Your task to perform on an android device: open device folders in google photos Image 0: 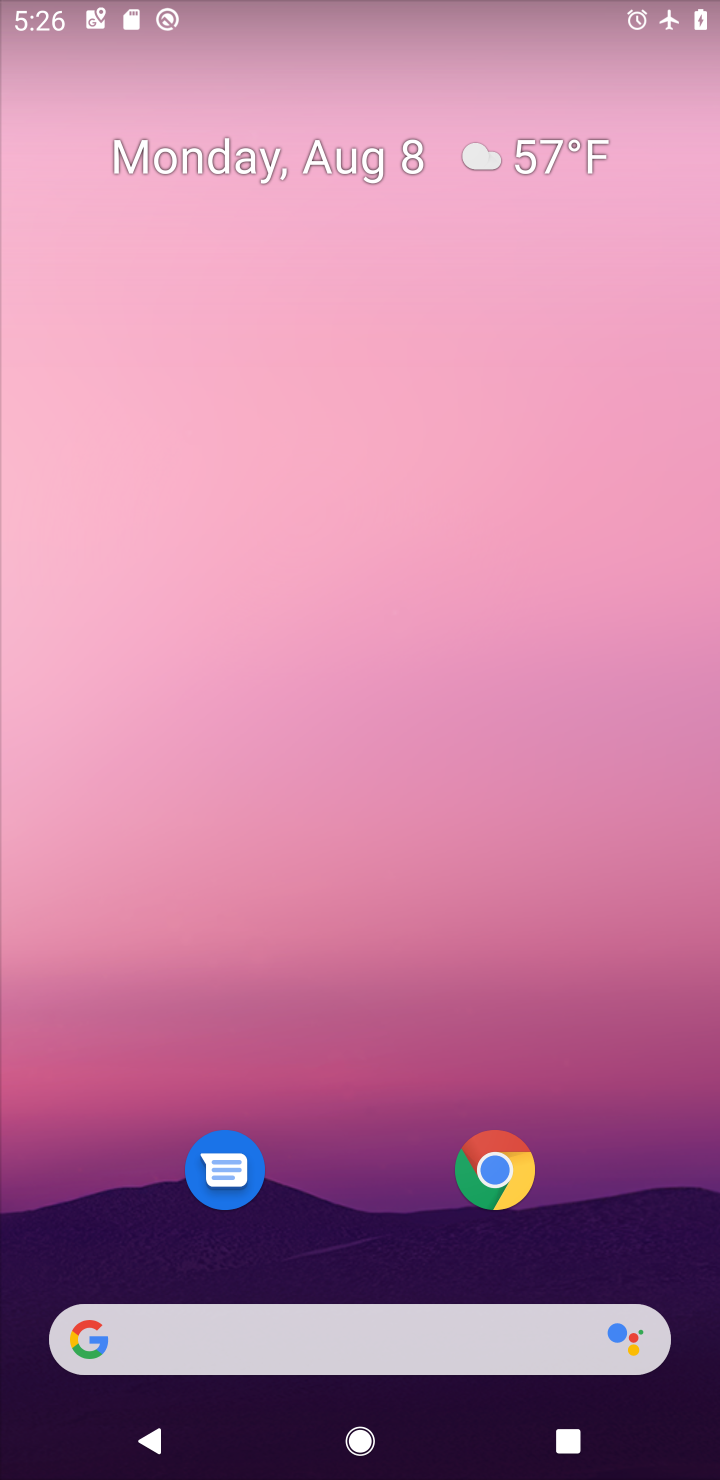
Step 0: drag from (353, 1213) to (317, 379)
Your task to perform on an android device: open device folders in google photos Image 1: 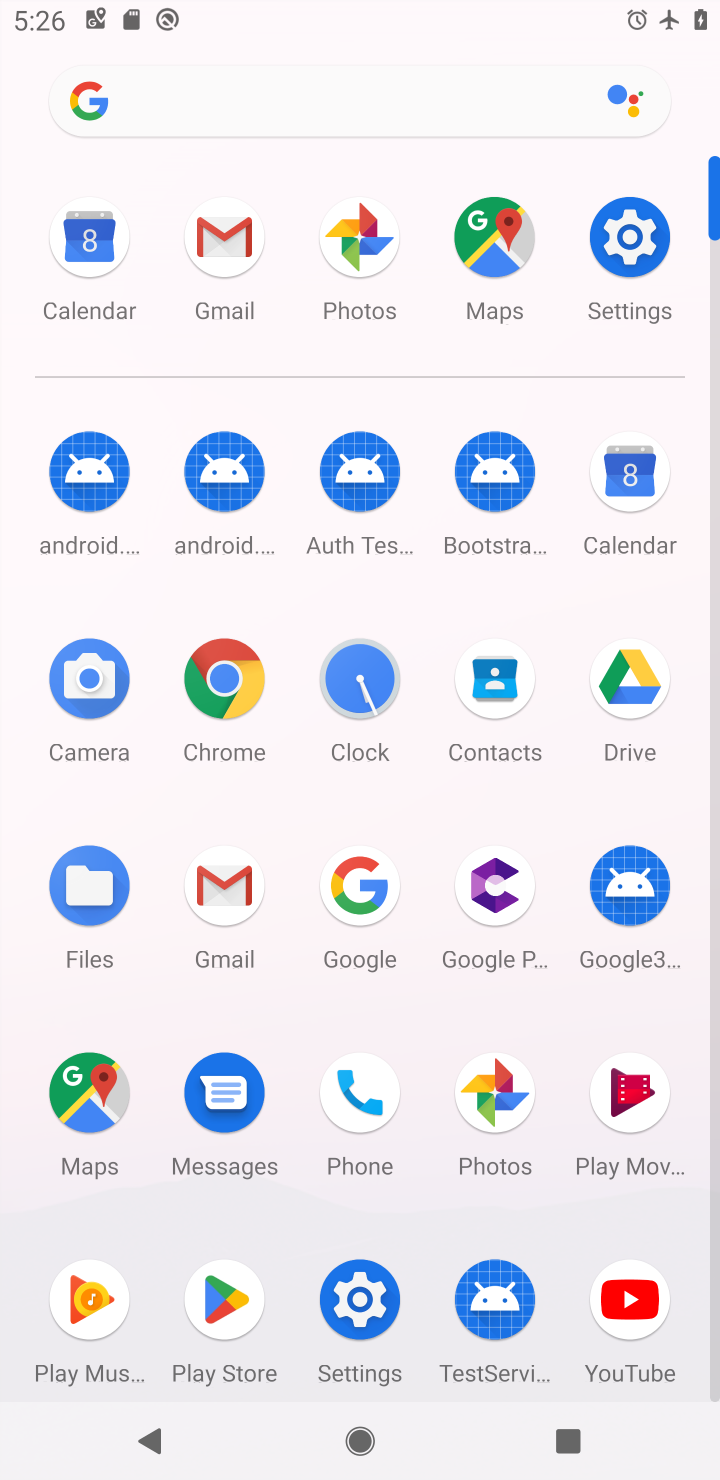
Step 1: click (356, 281)
Your task to perform on an android device: open device folders in google photos Image 2: 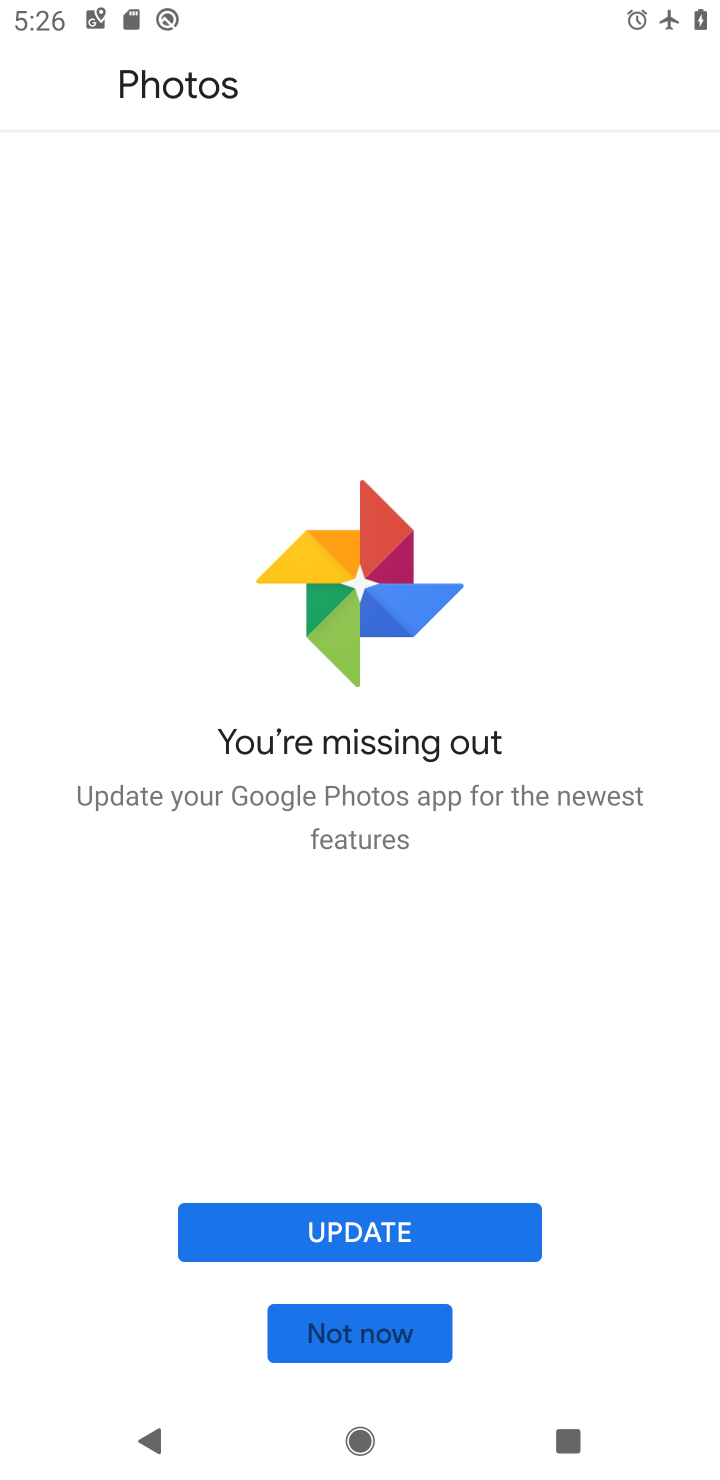
Step 2: click (394, 1354)
Your task to perform on an android device: open device folders in google photos Image 3: 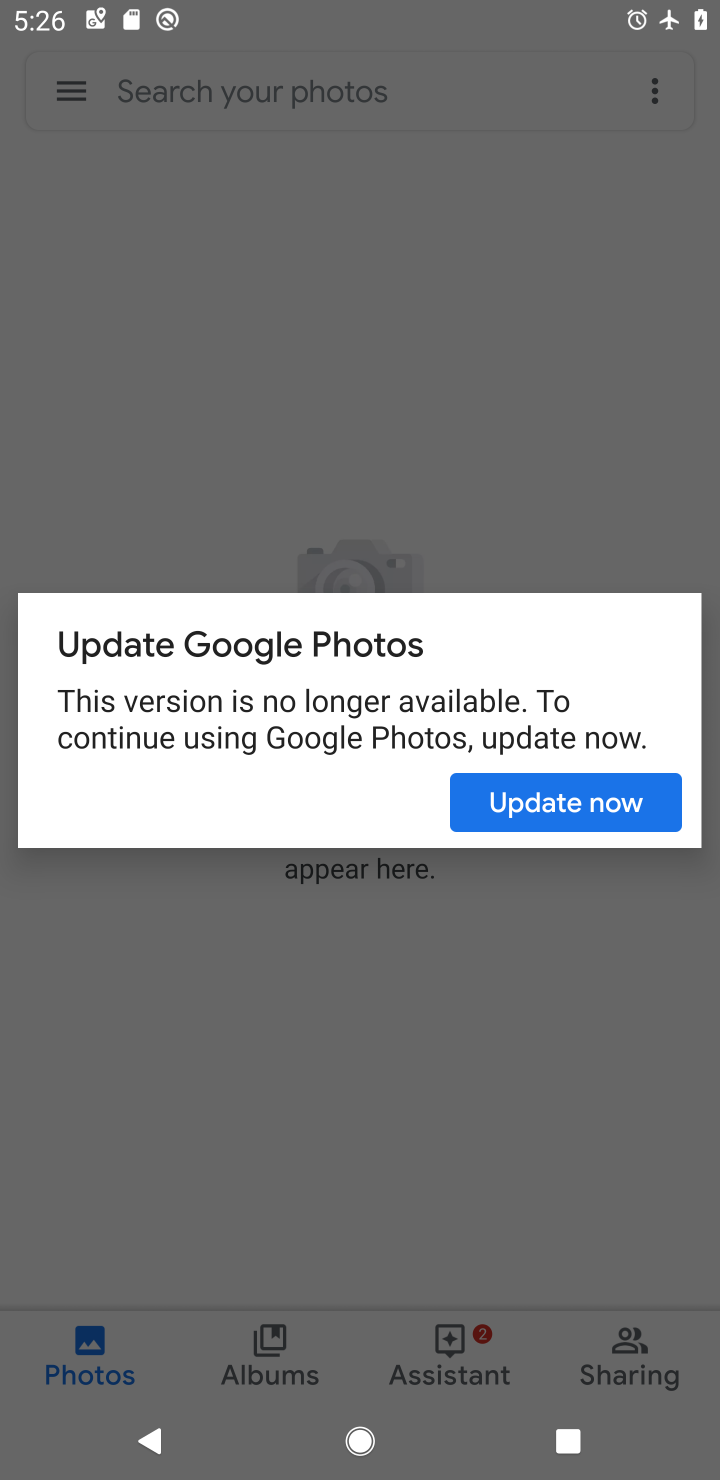
Step 3: click (576, 818)
Your task to perform on an android device: open device folders in google photos Image 4: 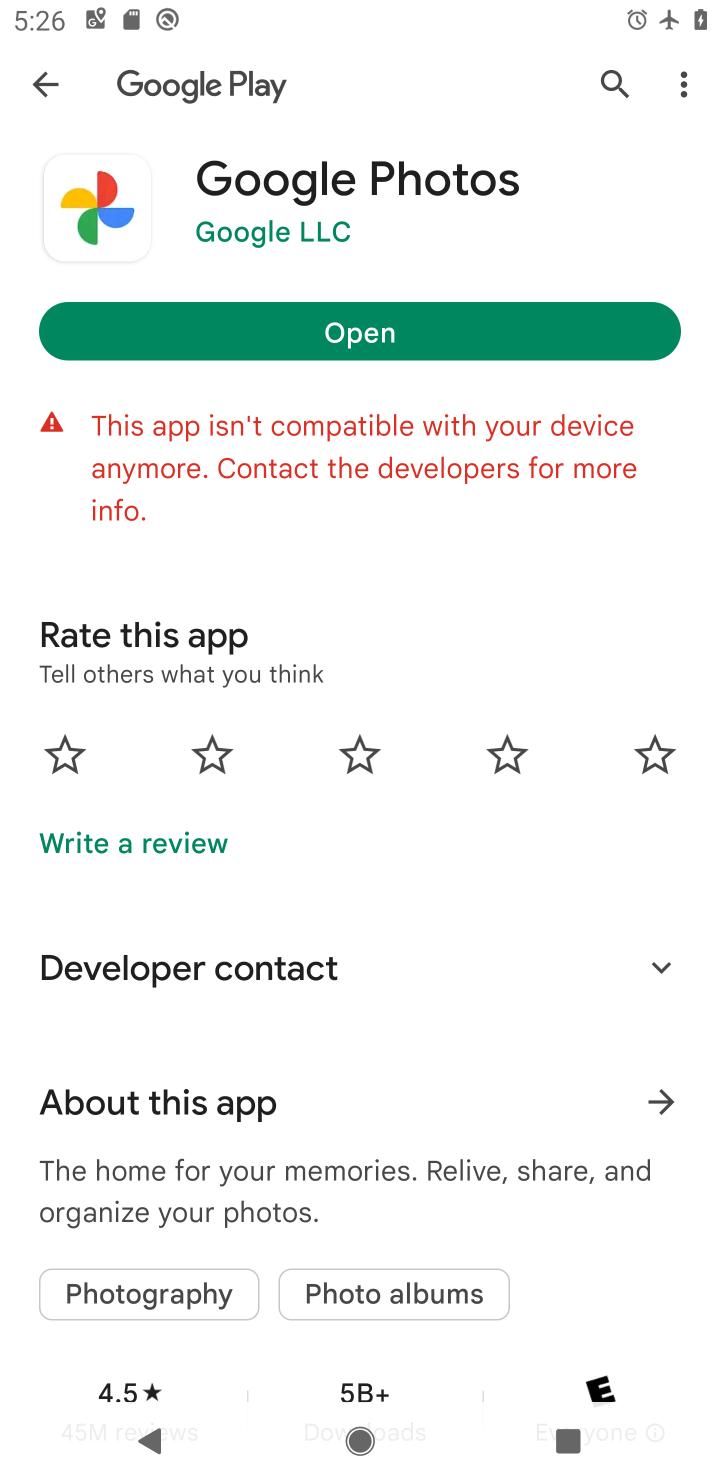
Step 4: click (418, 322)
Your task to perform on an android device: open device folders in google photos Image 5: 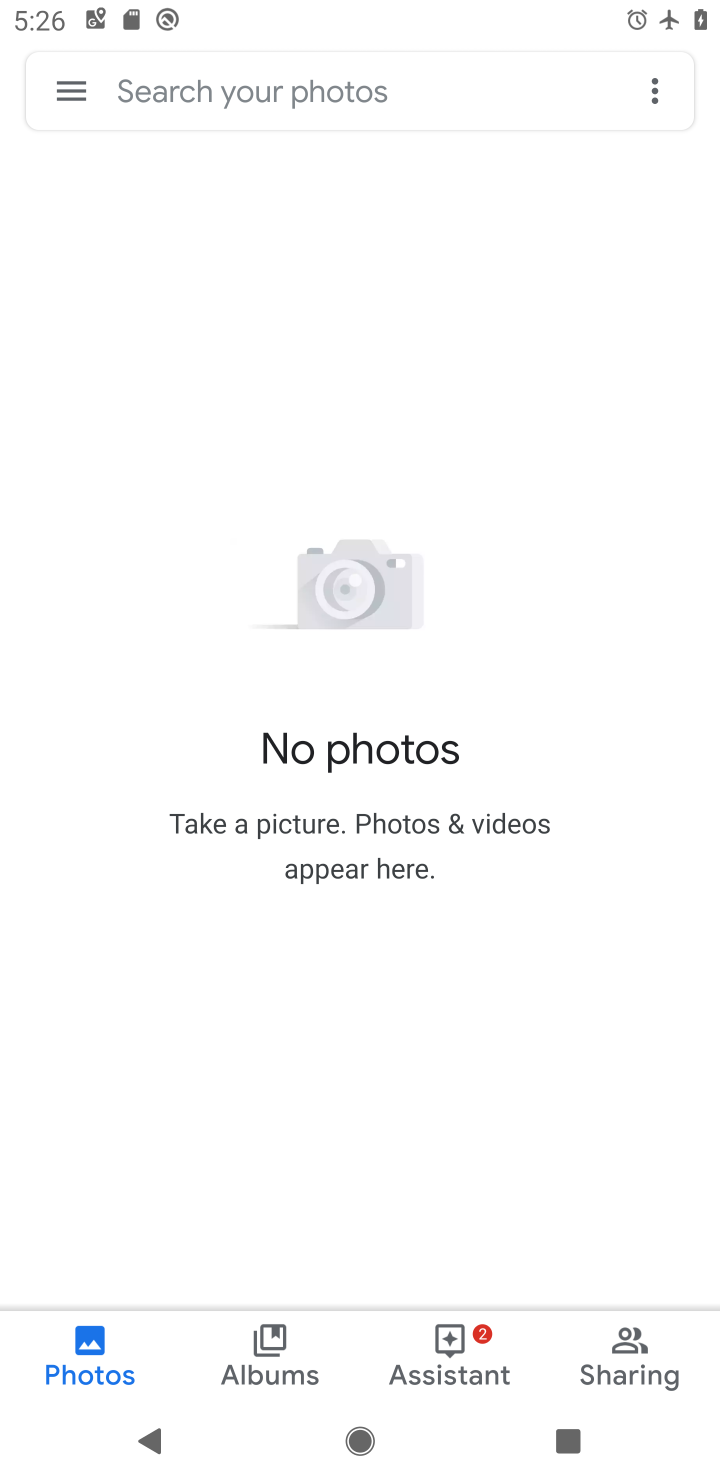
Step 5: click (55, 101)
Your task to perform on an android device: open device folders in google photos Image 6: 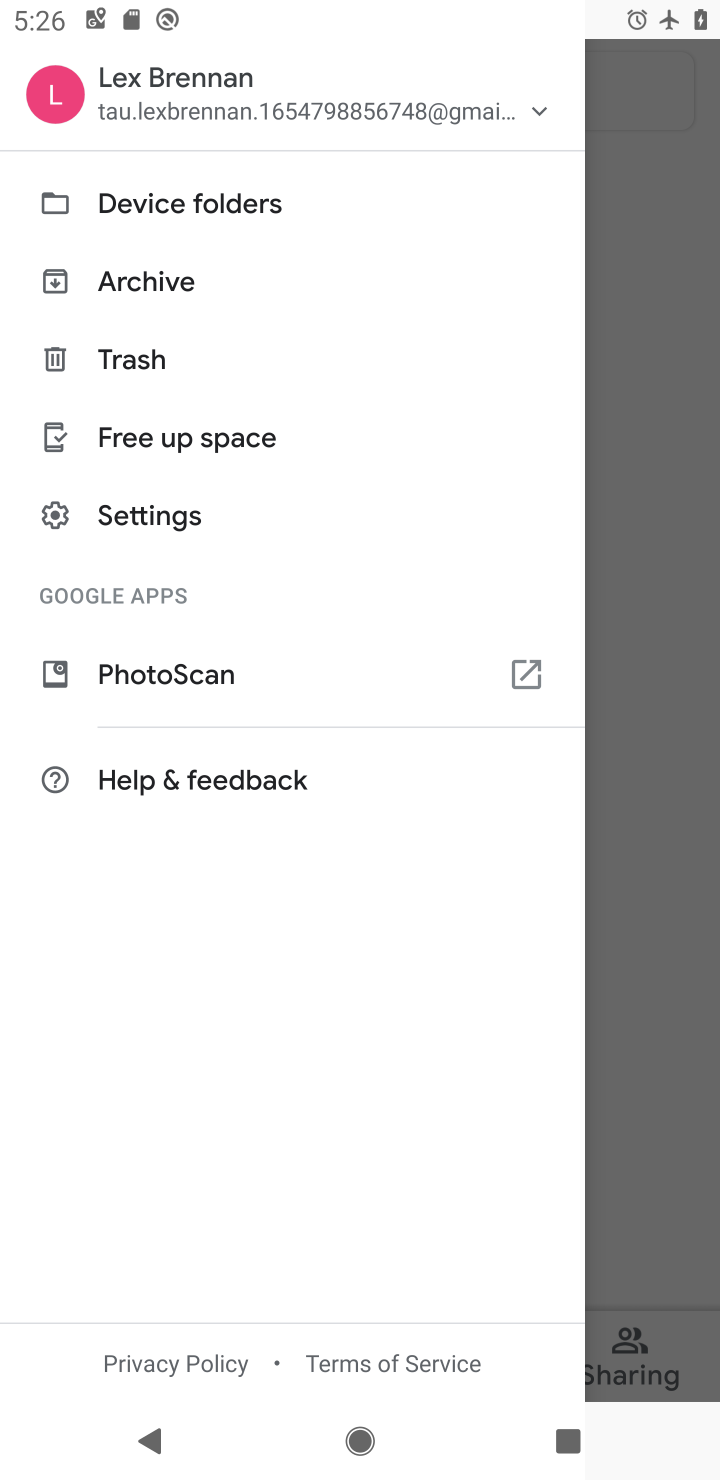
Step 6: click (204, 220)
Your task to perform on an android device: open device folders in google photos Image 7: 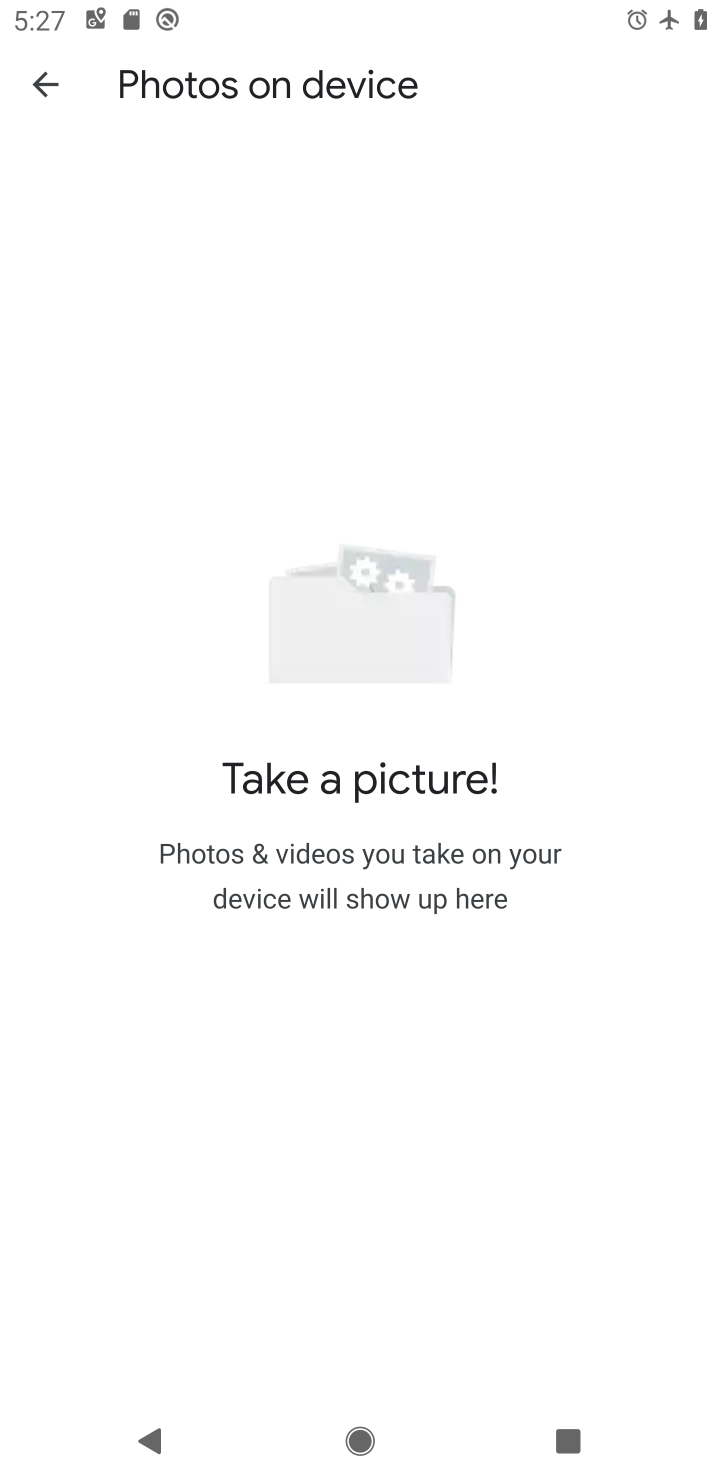
Step 7: task complete